Your task to perform on an android device: turn on sleep mode Image 0: 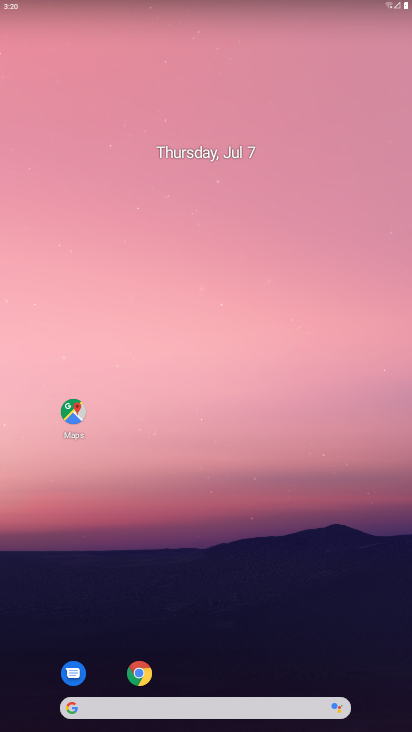
Step 0: drag from (193, 675) to (315, 57)
Your task to perform on an android device: turn on sleep mode Image 1: 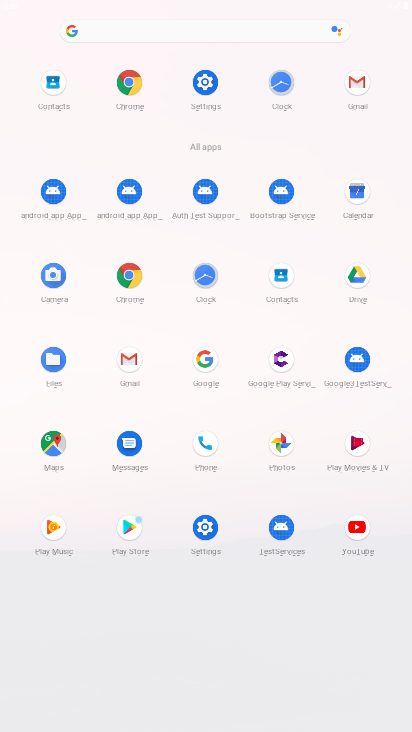
Step 1: click (206, 86)
Your task to perform on an android device: turn on sleep mode Image 2: 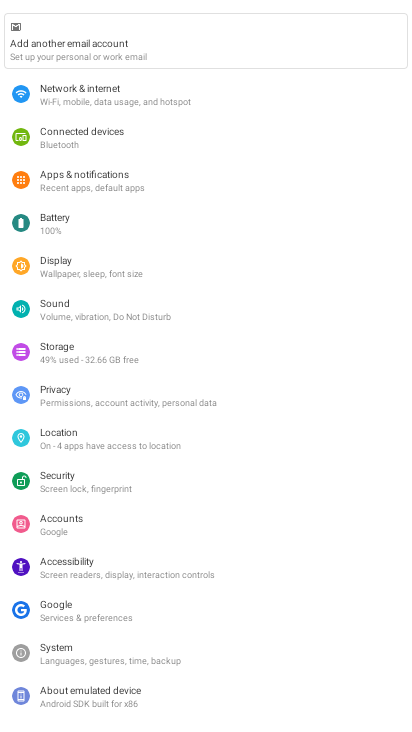
Step 2: click (103, 274)
Your task to perform on an android device: turn on sleep mode Image 3: 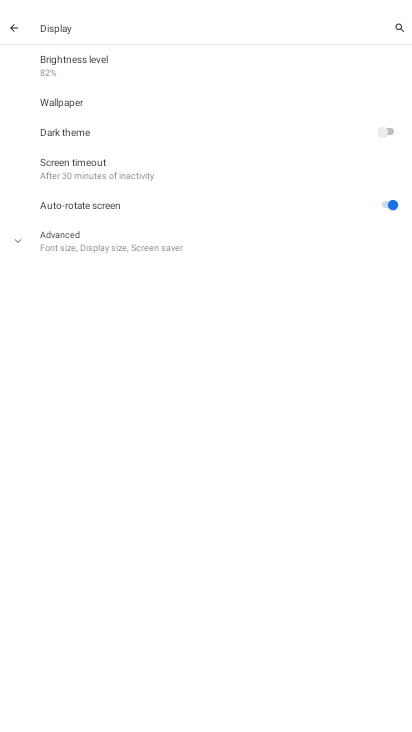
Step 3: task complete